Your task to perform on an android device: Go to ESPN.com Image 0: 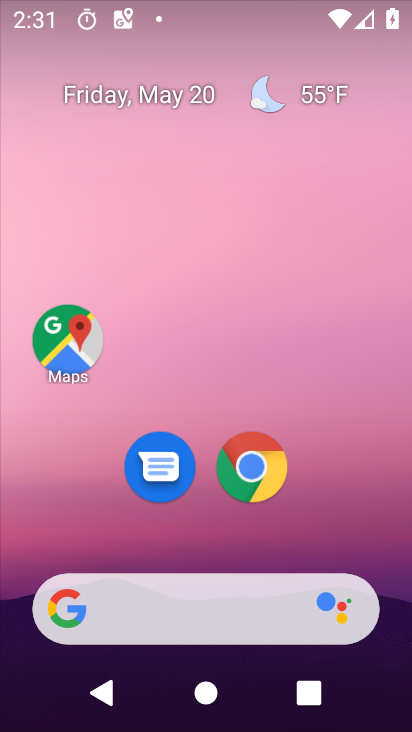
Step 0: click (249, 464)
Your task to perform on an android device: Go to ESPN.com Image 1: 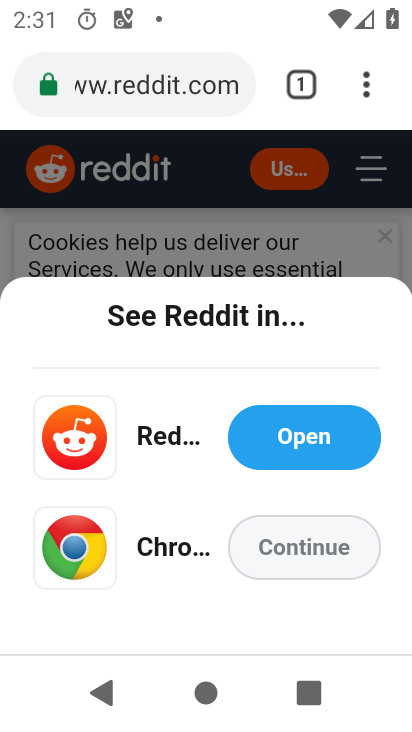
Step 1: click (143, 96)
Your task to perform on an android device: Go to ESPN.com Image 2: 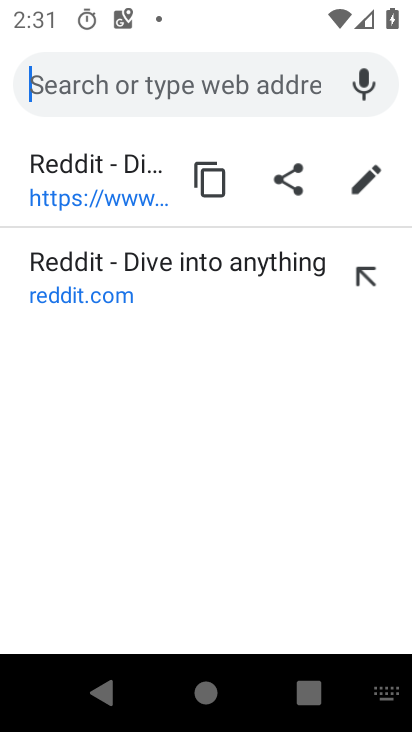
Step 2: type "ESPN.com"
Your task to perform on an android device: Go to ESPN.com Image 3: 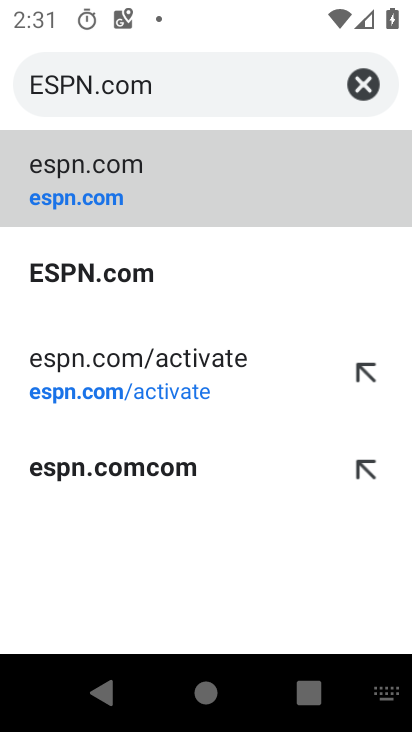
Step 3: click (104, 172)
Your task to perform on an android device: Go to ESPN.com Image 4: 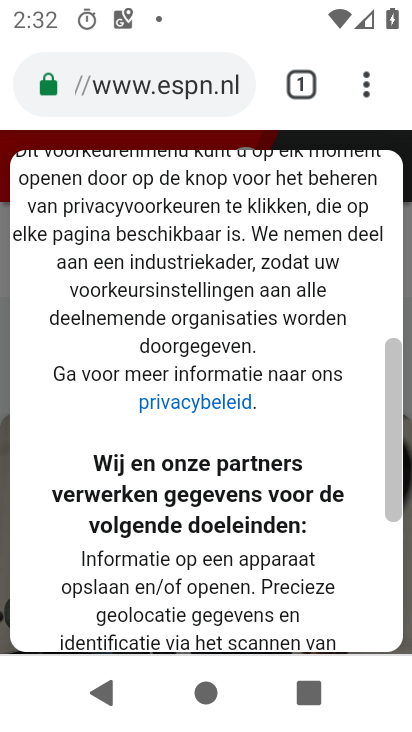
Step 4: task complete